Your task to perform on an android device: Go to Wikipedia Image 0: 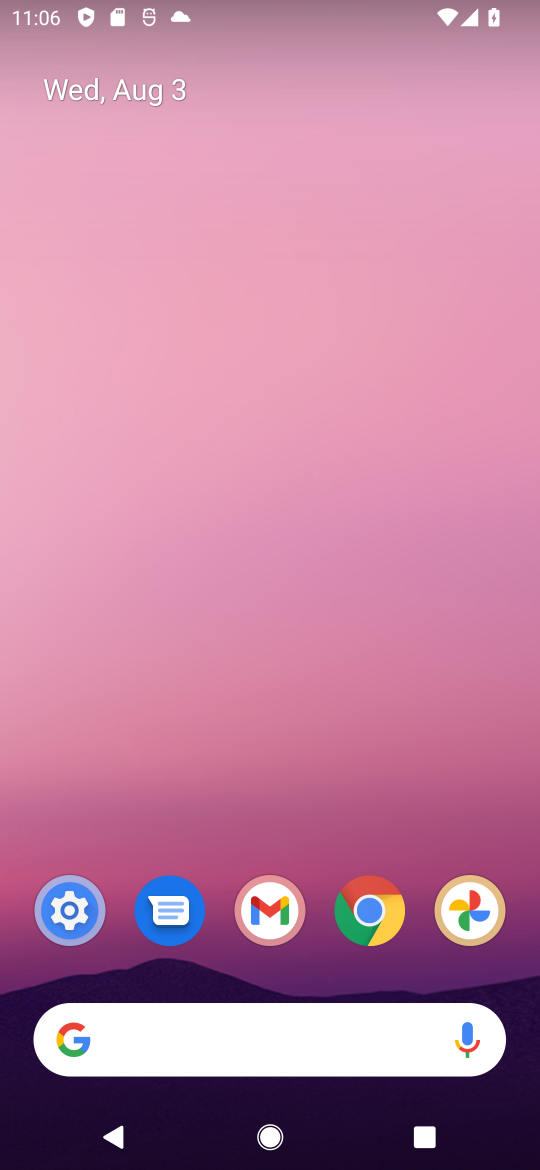
Step 0: press home button
Your task to perform on an android device: Go to Wikipedia Image 1: 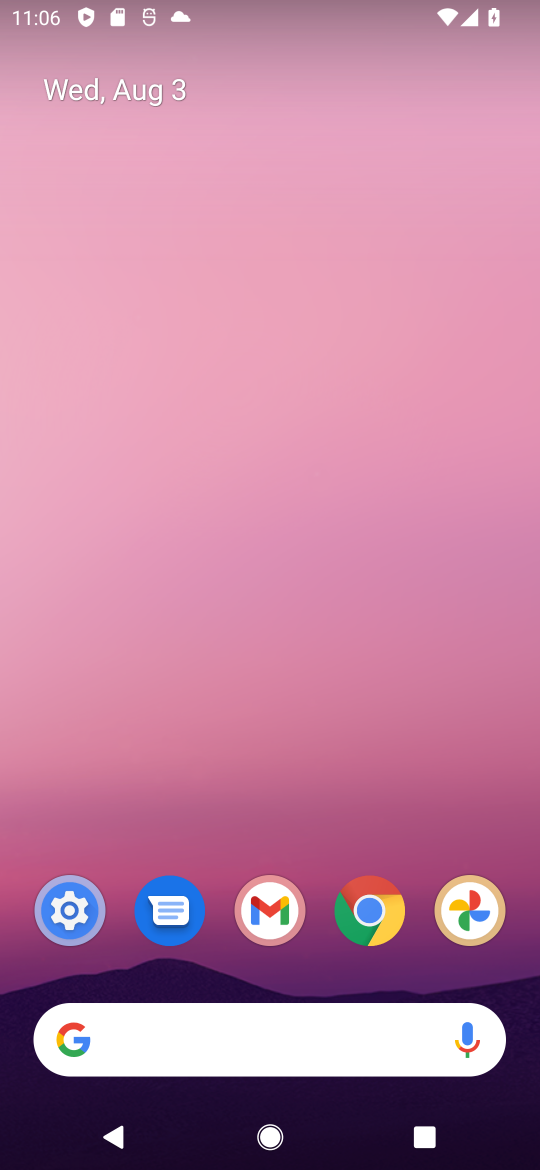
Step 1: click (372, 902)
Your task to perform on an android device: Go to Wikipedia Image 2: 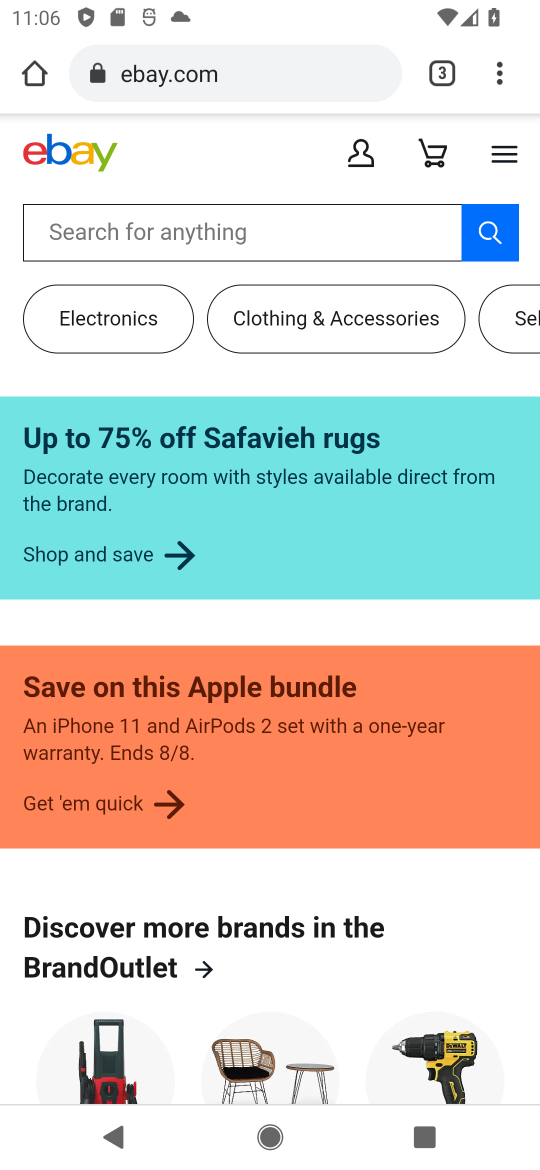
Step 2: click (437, 70)
Your task to perform on an android device: Go to Wikipedia Image 3: 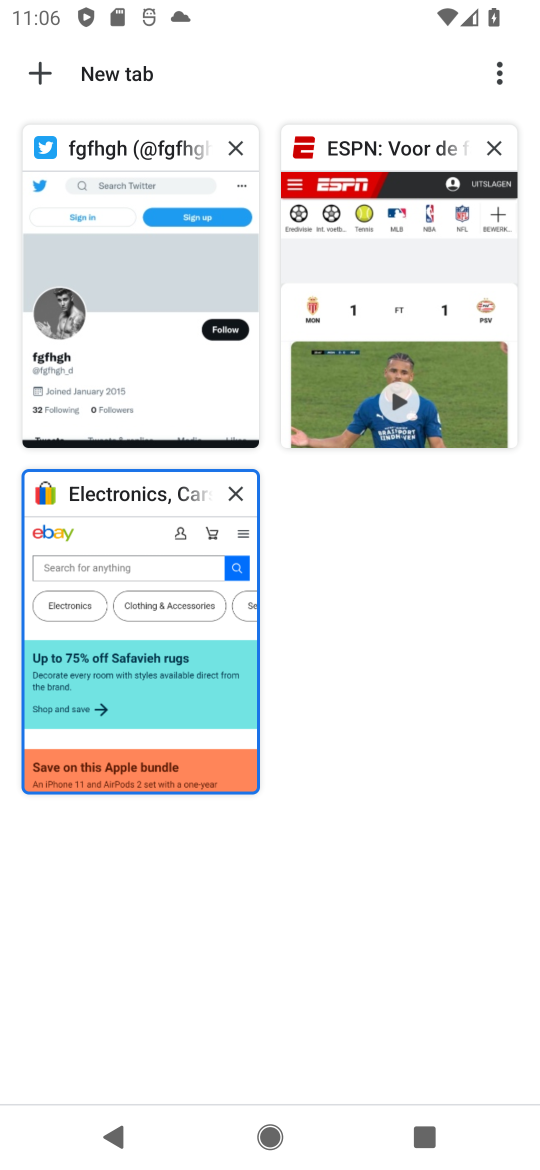
Step 3: click (29, 56)
Your task to perform on an android device: Go to Wikipedia Image 4: 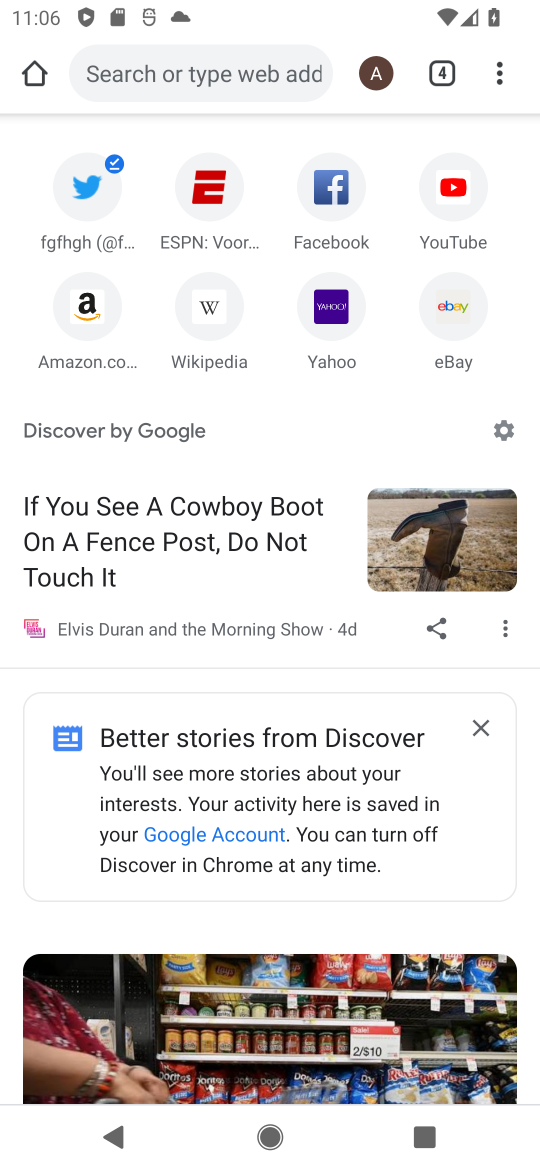
Step 4: click (207, 309)
Your task to perform on an android device: Go to Wikipedia Image 5: 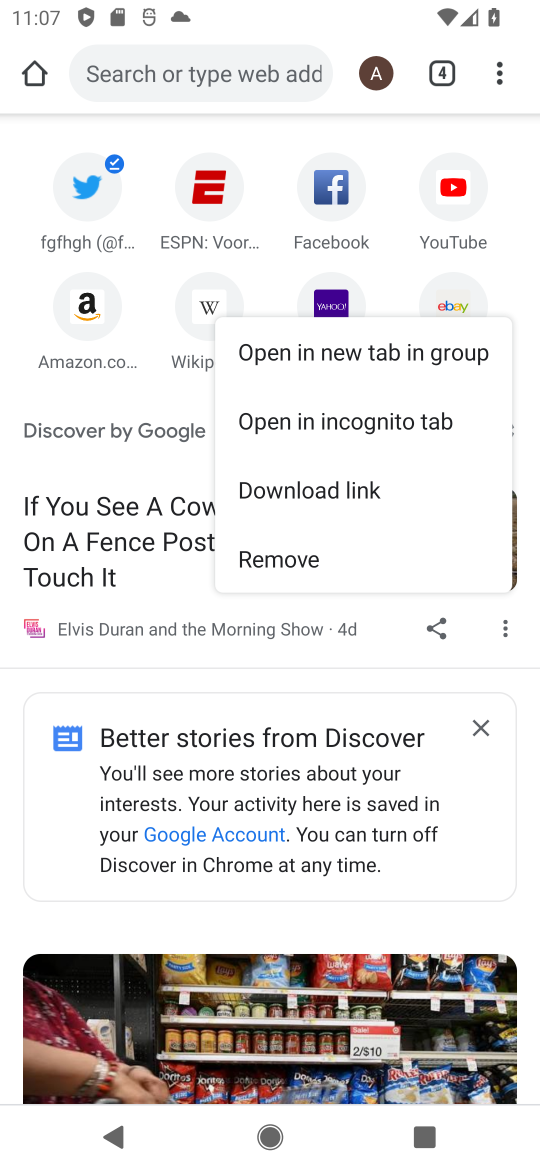
Step 5: click (194, 314)
Your task to perform on an android device: Go to Wikipedia Image 6: 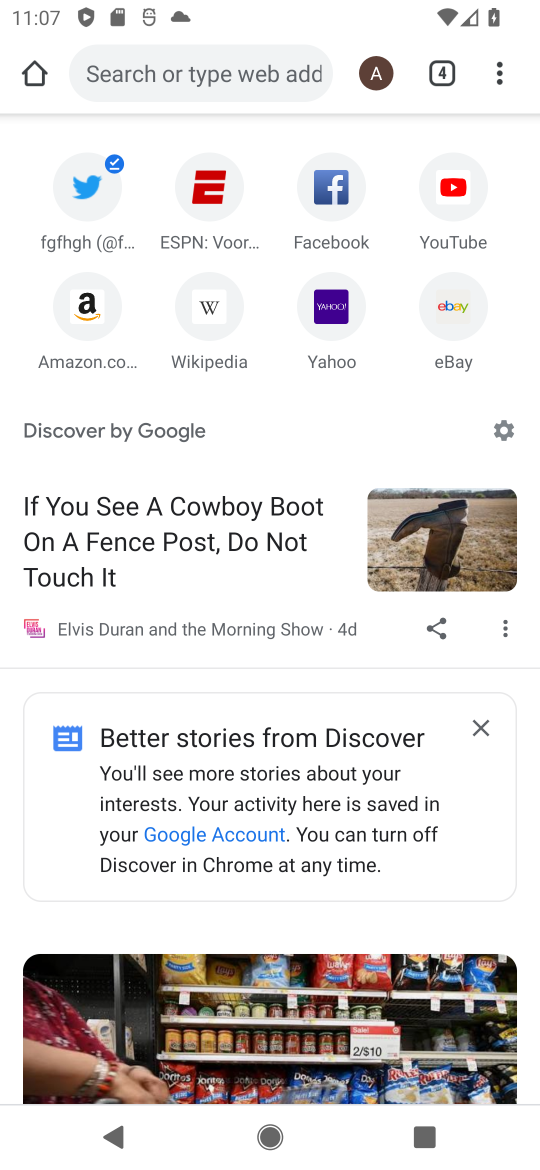
Step 6: click (208, 300)
Your task to perform on an android device: Go to Wikipedia Image 7: 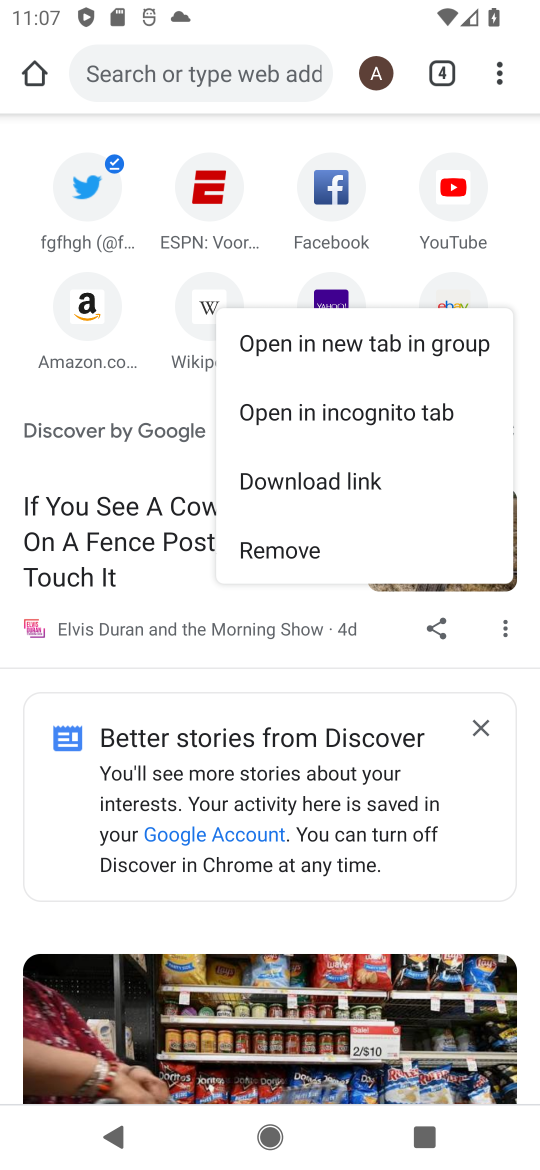
Step 7: click (208, 300)
Your task to perform on an android device: Go to Wikipedia Image 8: 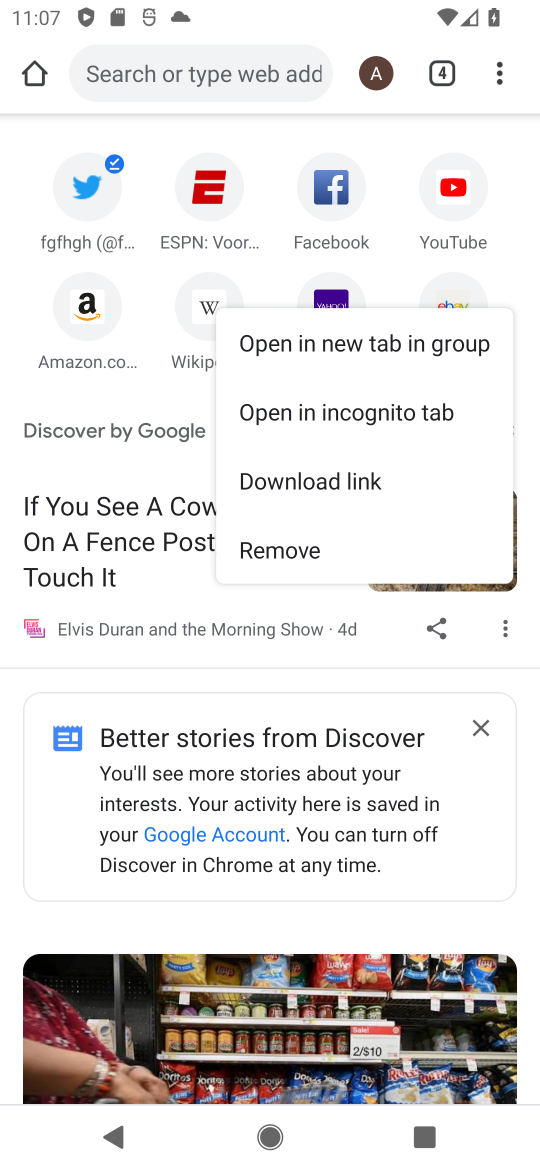
Step 8: click (185, 310)
Your task to perform on an android device: Go to Wikipedia Image 9: 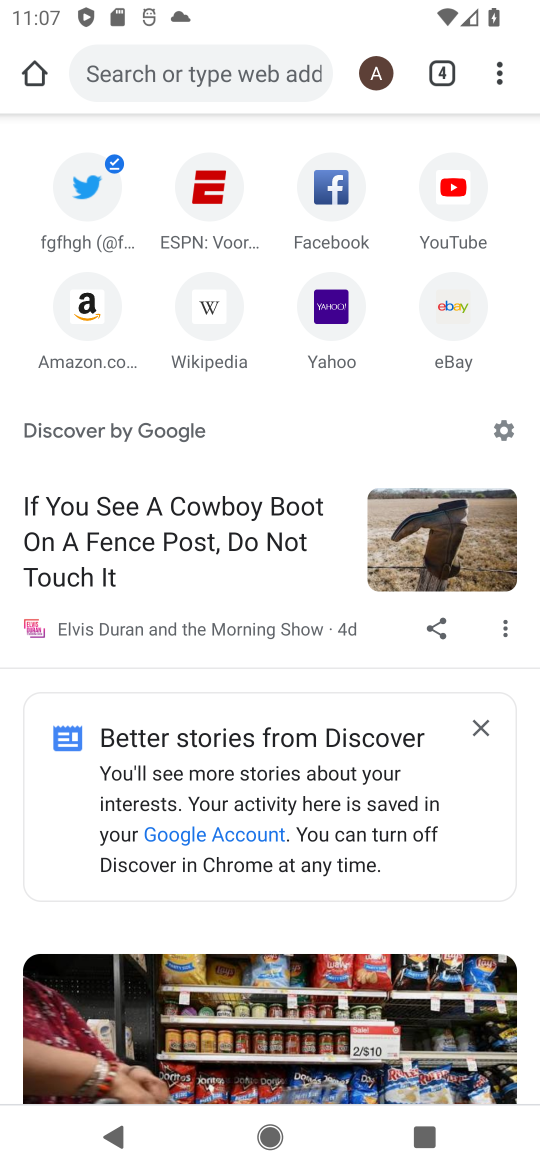
Step 9: click (207, 306)
Your task to perform on an android device: Go to Wikipedia Image 10: 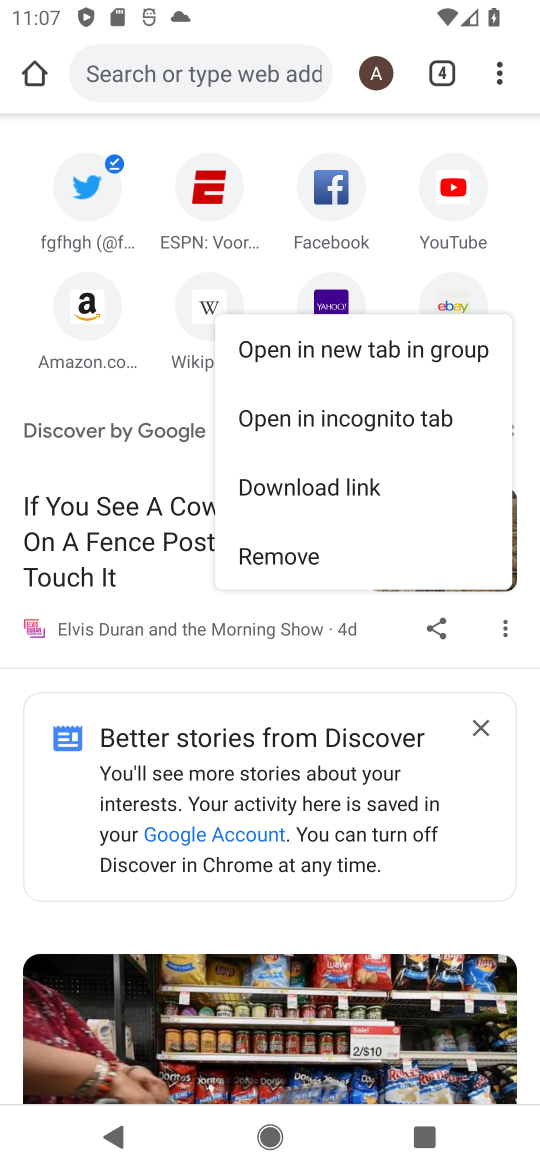
Step 10: click (201, 302)
Your task to perform on an android device: Go to Wikipedia Image 11: 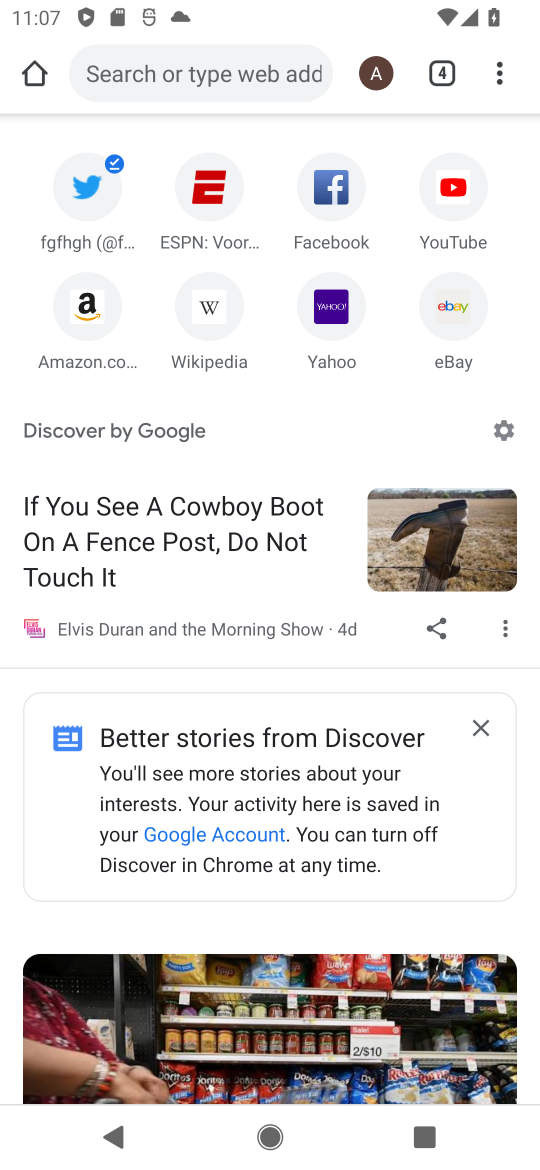
Step 11: click (213, 301)
Your task to perform on an android device: Go to Wikipedia Image 12: 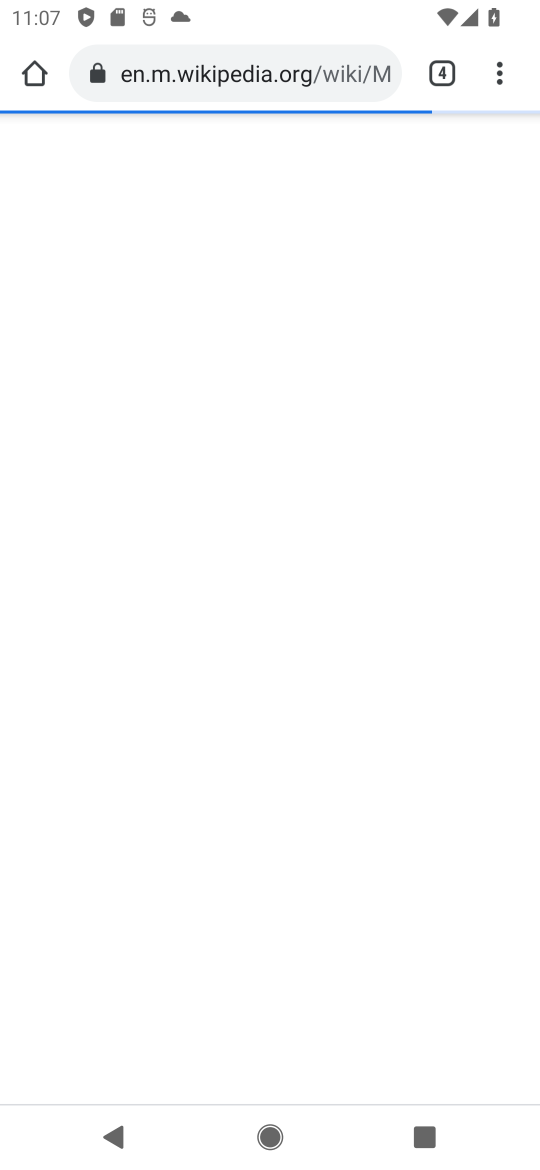
Step 12: click (206, 305)
Your task to perform on an android device: Go to Wikipedia Image 13: 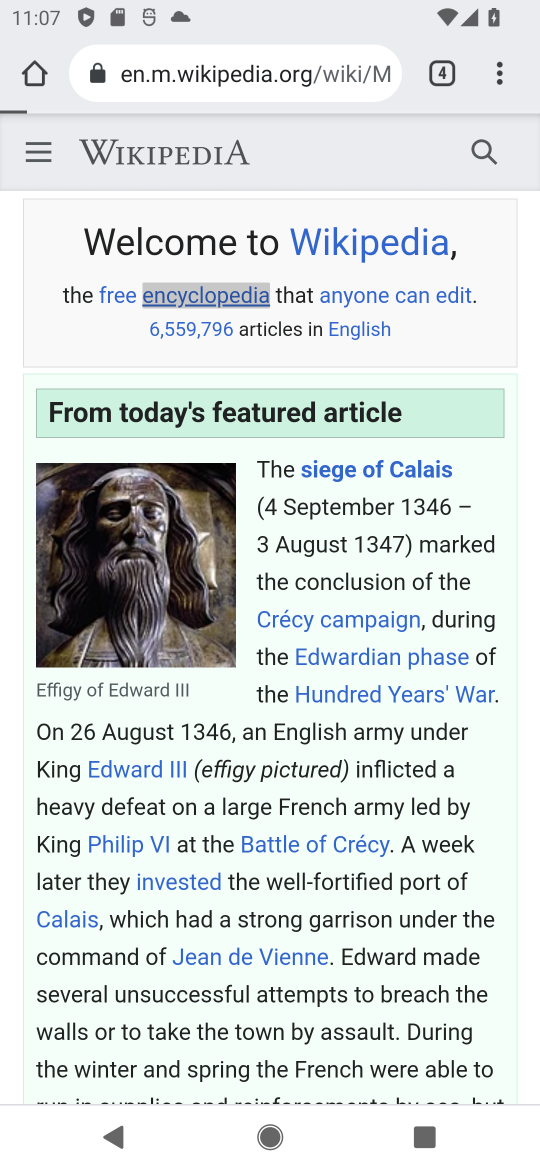
Step 13: click (208, 313)
Your task to perform on an android device: Go to Wikipedia Image 14: 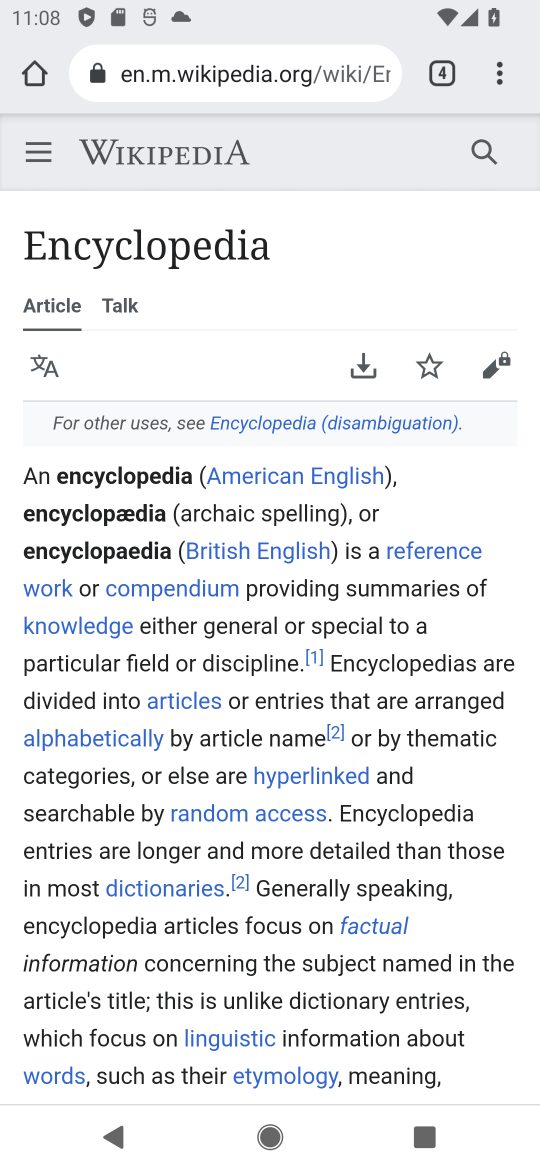
Step 14: task complete